Your task to perform on an android device: toggle location history Image 0: 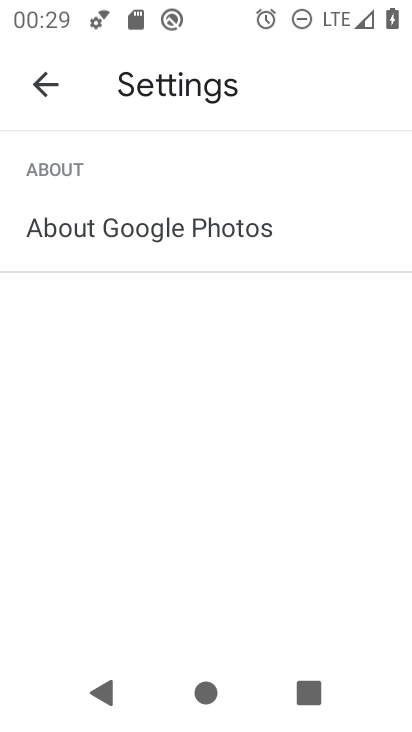
Step 0: press home button
Your task to perform on an android device: toggle location history Image 1: 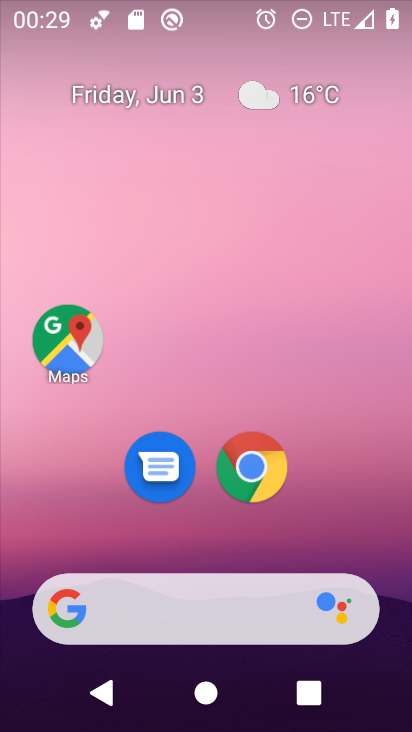
Step 1: click (72, 339)
Your task to perform on an android device: toggle location history Image 2: 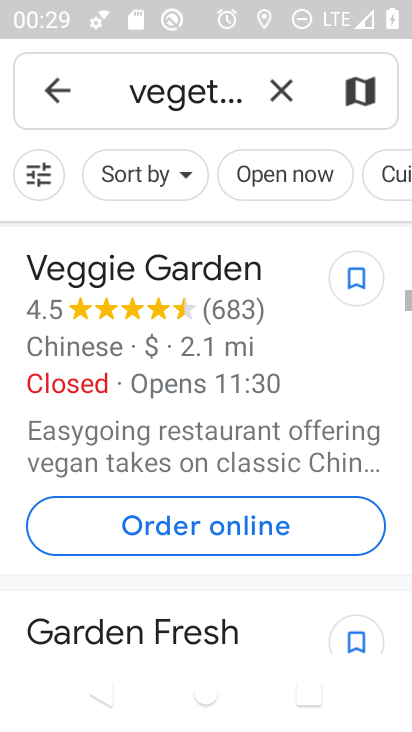
Step 2: click (286, 89)
Your task to perform on an android device: toggle location history Image 3: 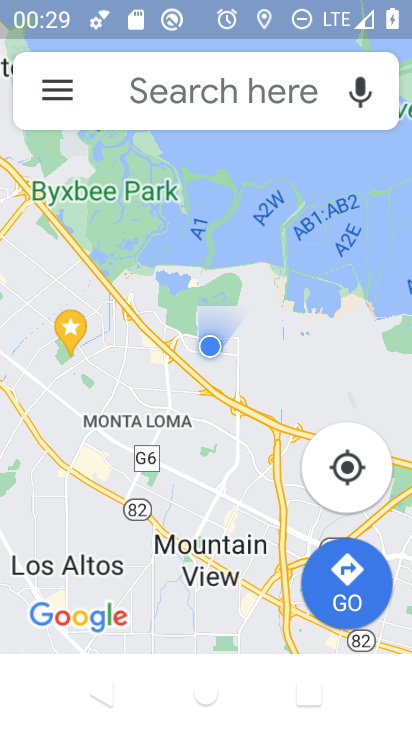
Step 3: click (62, 90)
Your task to perform on an android device: toggle location history Image 4: 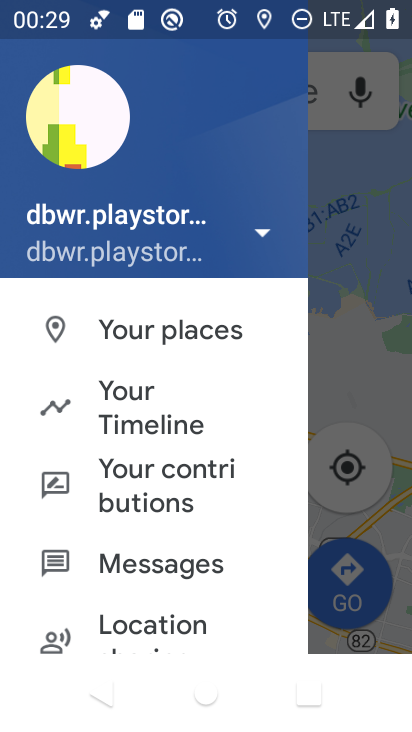
Step 4: drag from (225, 507) to (249, 220)
Your task to perform on an android device: toggle location history Image 5: 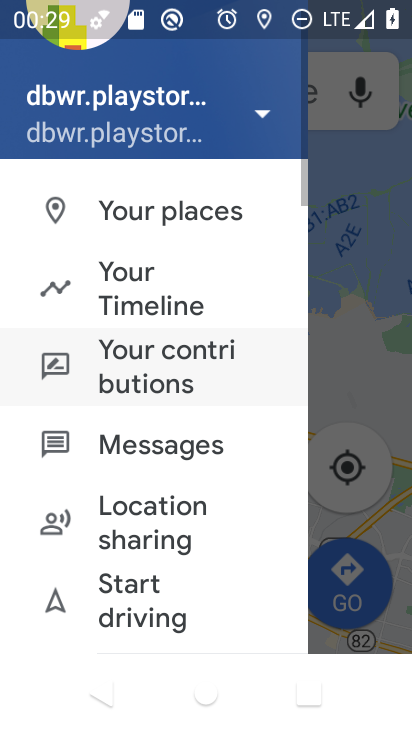
Step 5: click (258, 221)
Your task to perform on an android device: toggle location history Image 6: 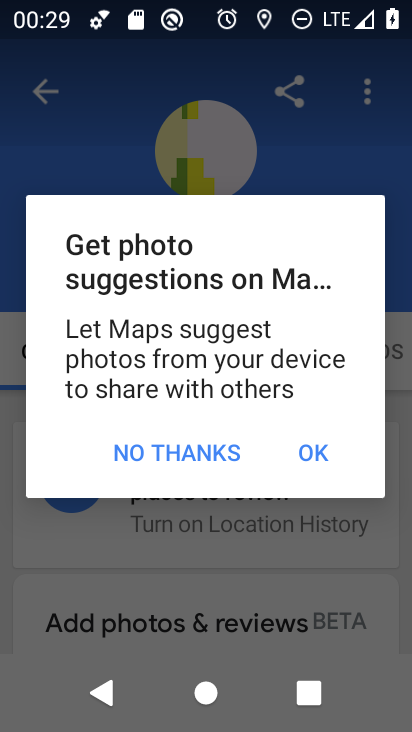
Step 6: click (148, 460)
Your task to perform on an android device: toggle location history Image 7: 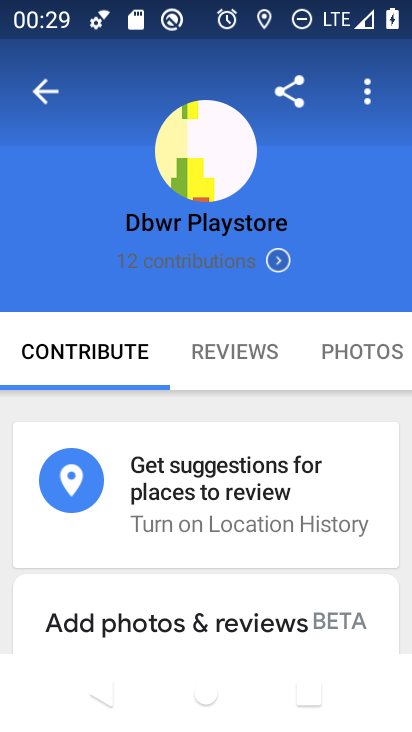
Step 7: press back button
Your task to perform on an android device: toggle location history Image 8: 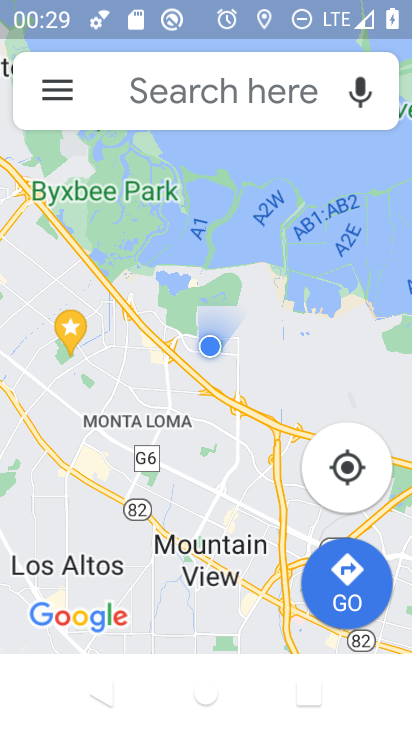
Step 8: click (55, 97)
Your task to perform on an android device: toggle location history Image 9: 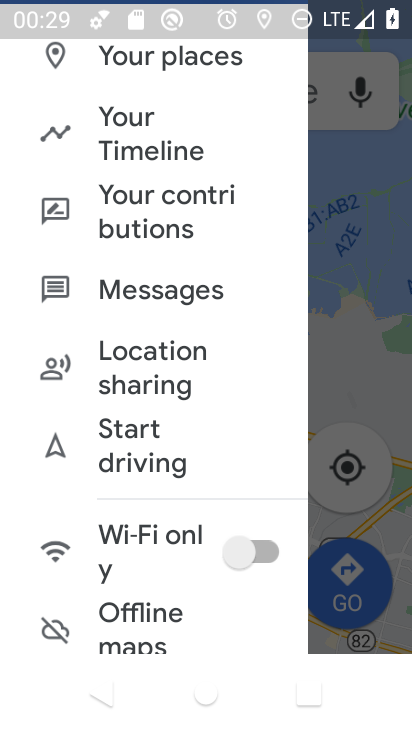
Step 9: drag from (205, 602) to (264, 191)
Your task to perform on an android device: toggle location history Image 10: 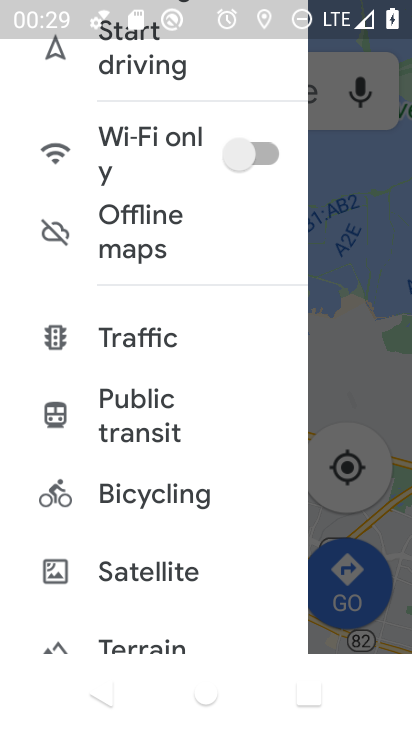
Step 10: drag from (258, 571) to (224, 197)
Your task to perform on an android device: toggle location history Image 11: 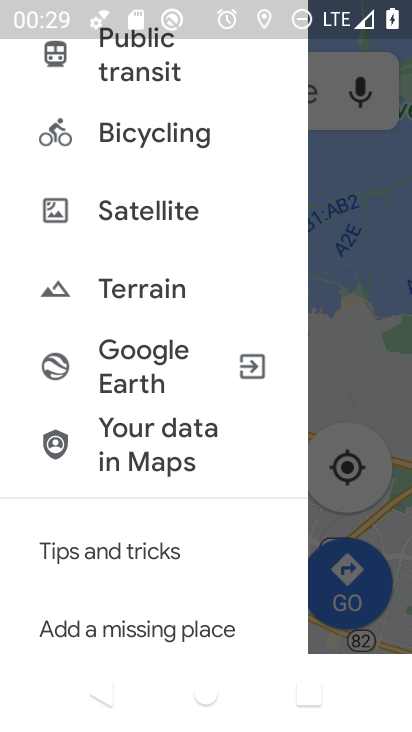
Step 11: drag from (235, 567) to (225, 116)
Your task to perform on an android device: toggle location history Image 12: 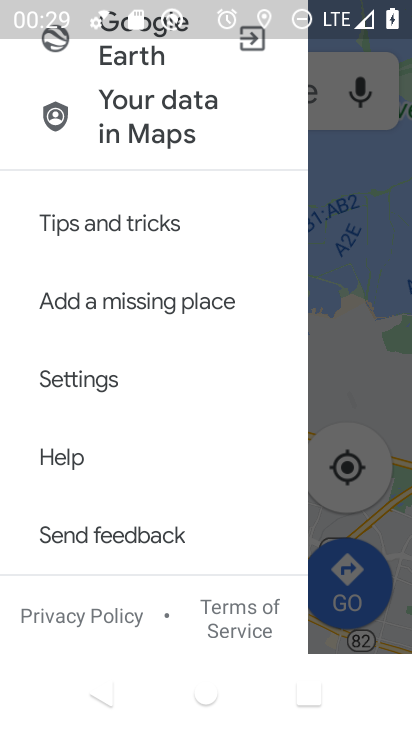
Step 12: click (46, 389)
Your task to perform on an android device: toggle location history Image 13: 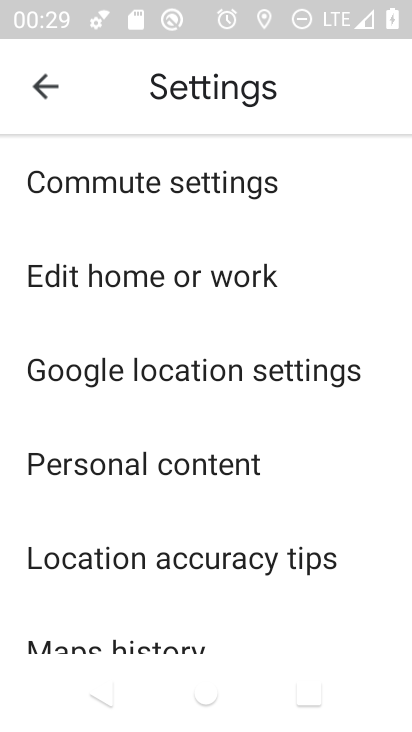
Step 13: click (139, 486)
Your task to perform on an android device: toggle location history Image 14: 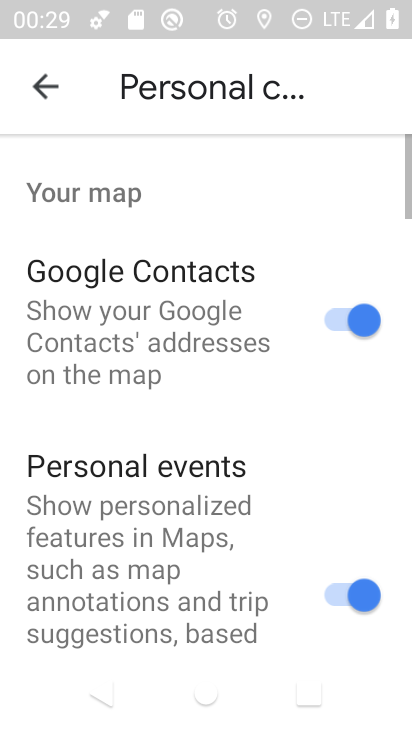
Step 14: drag from (267, 580) to (276, 189)
Your task to perform on an android device: toggle location history Image 15: 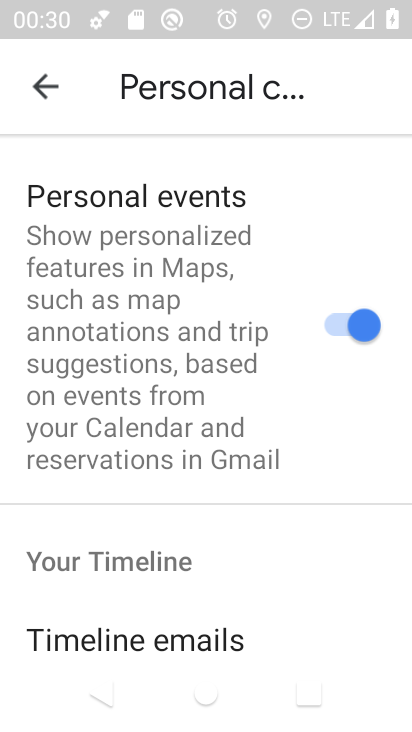
Step 15: drag from (258, 564) to (285, 186)
Your task to perform on an android device: toggle location history Image 16: 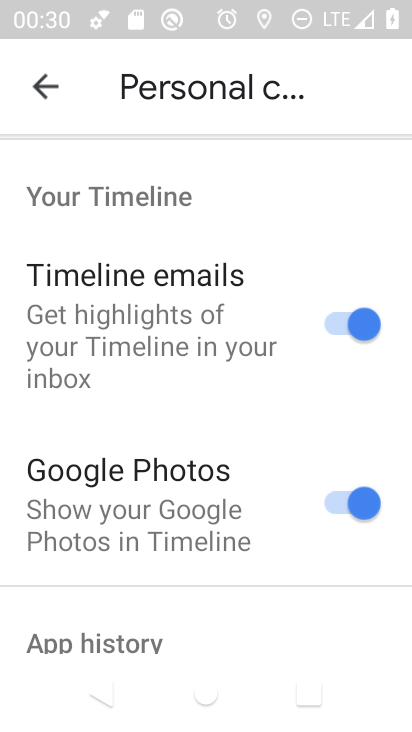
Step 16: drag from (241, 575) to (271, 224)
Your task to perform on an android device: toggle location history Image 17: 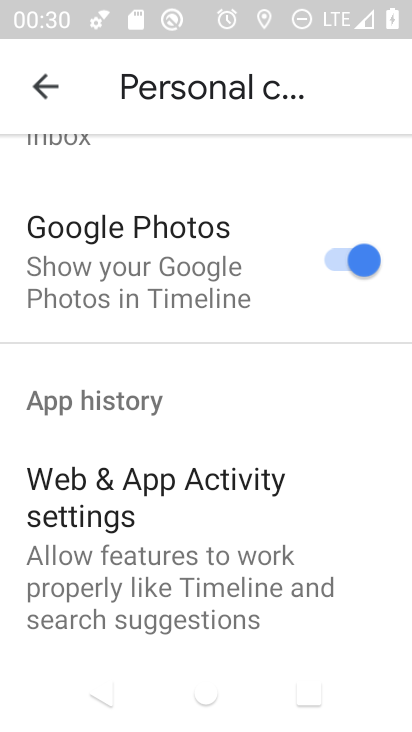
Step 17: drag from (322, 592) to (283, 225)
Your task to perform on an android device: toggle location history Image 18: 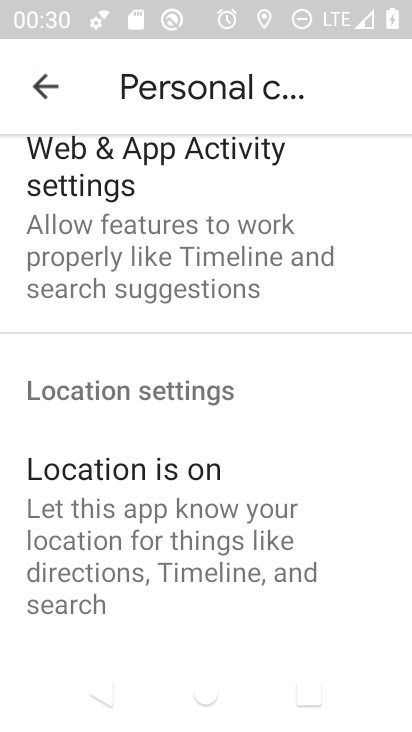
Step 18: drag from (285, 573) to (275, 133)
Your task to perform on an android device: toggle location history Image 19: 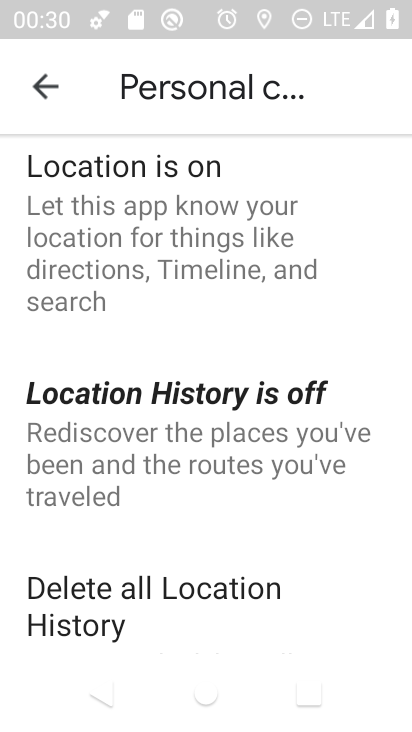
Step 19: click (185, 465)
Your task to perform on an android device: toggle location history Image 20: 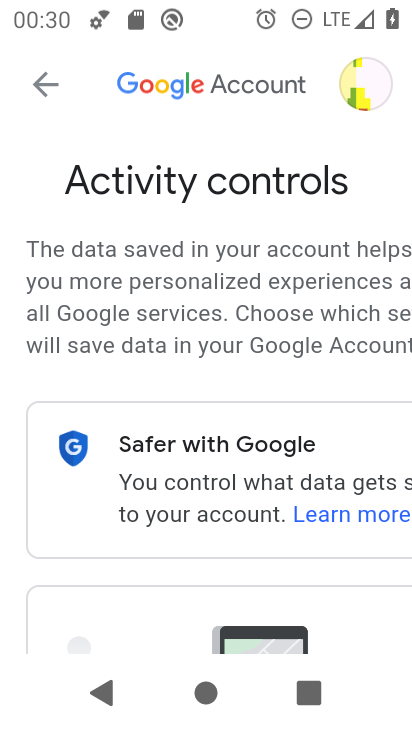
Step 20: drag from (291, 567) to (205, 85)
Your task to perform on an android device: toggle location history Image 21: 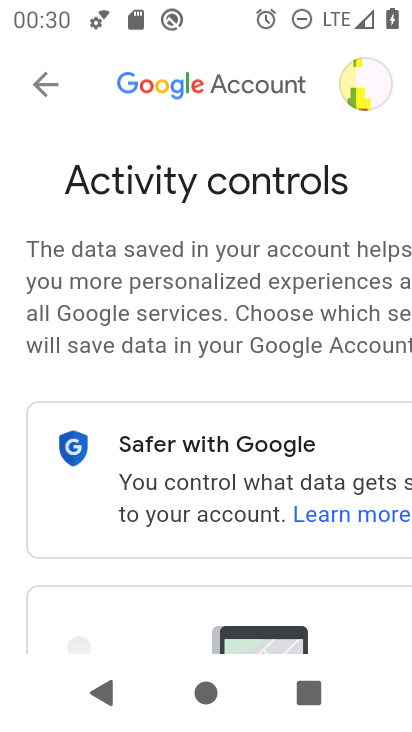
Step 21: drag from (342, 571) to (255, 125)
Your task to perform on an android device: toggle location history Image 22: 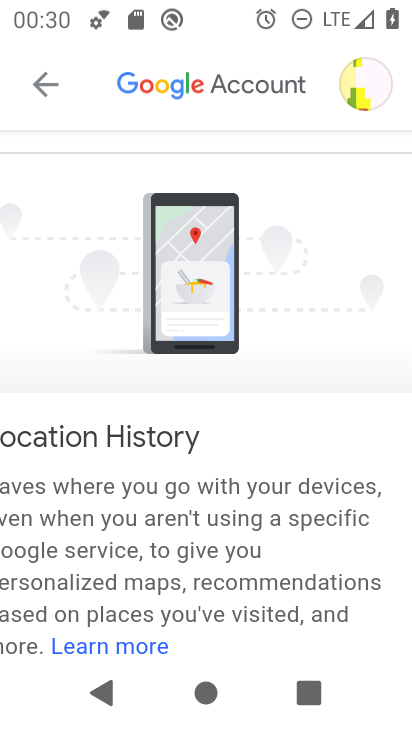
Step 22: drag from (282, 568) to (277, 138)
Your task to perform on an android device: toggle location history Image 23: 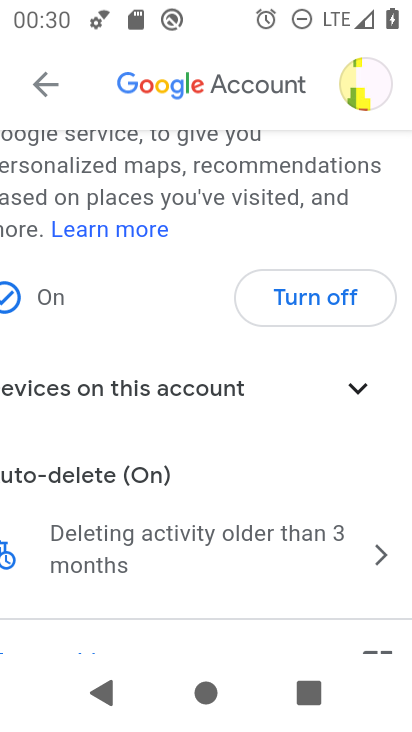
Step 23: click (317, 300)
Your task to perform on an android device: toggle location history Image 24: 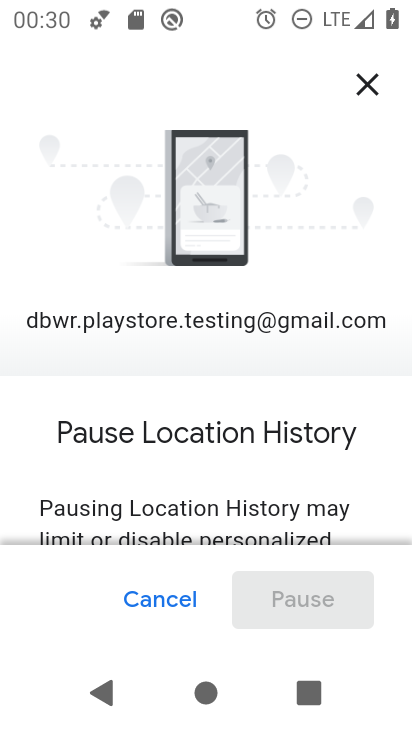
Step 24: drag from (254, 513) to (261, 125)
Your task to perform on an android device: toggle location history Image 25: 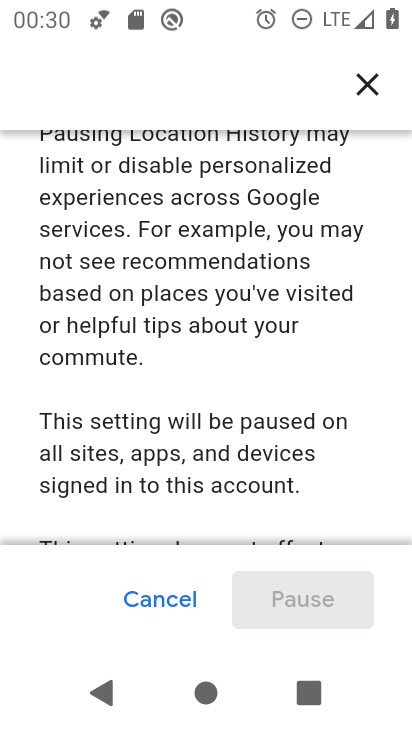
Step 25: drag from (231, 446) to (233, 87)
Your task to perform on an android device: toggle location history Image 26: 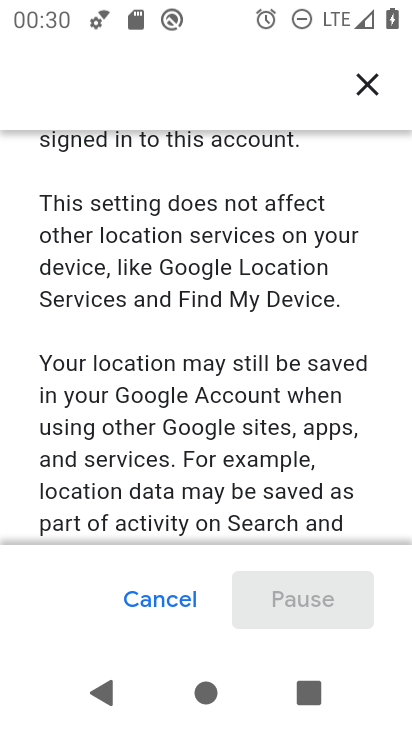
Step 26: drag from (234, 506) to (249, 89)
Your task to perform on an android device: toggle location history Image 27: 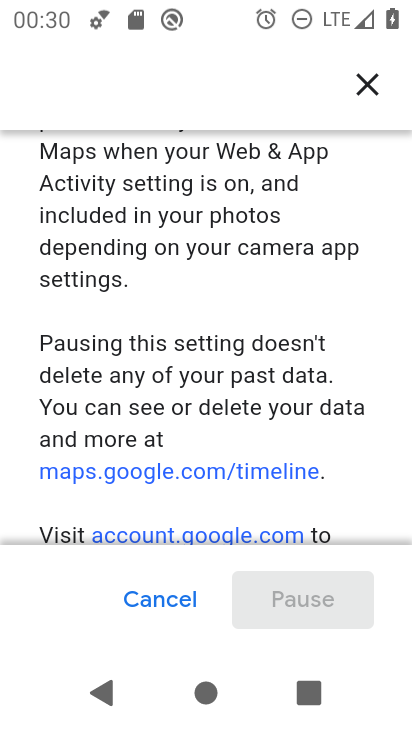
Step 27: drag from (260, 457) to (219, 77)
Your task to perform on an android device: toggle location history Image 28: 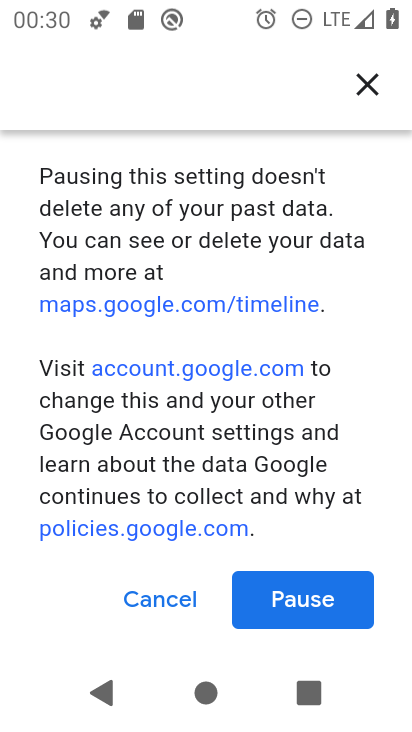
Step 28: click (305, 600)
Your task to perform on an android device: toggle location history Image 29: 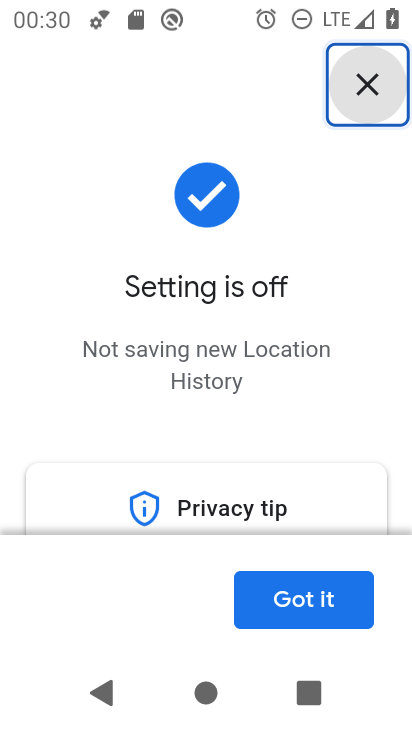
Step 29: click (304, 593)
Your task to perform on an android device: toggle location history Image 30: 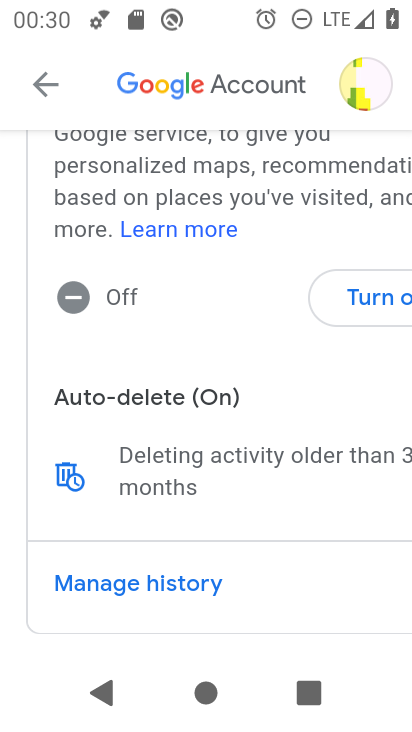
Step 30: task complete